Your task to perform on an android device: What's a good restaurant in Miami? Image 0: 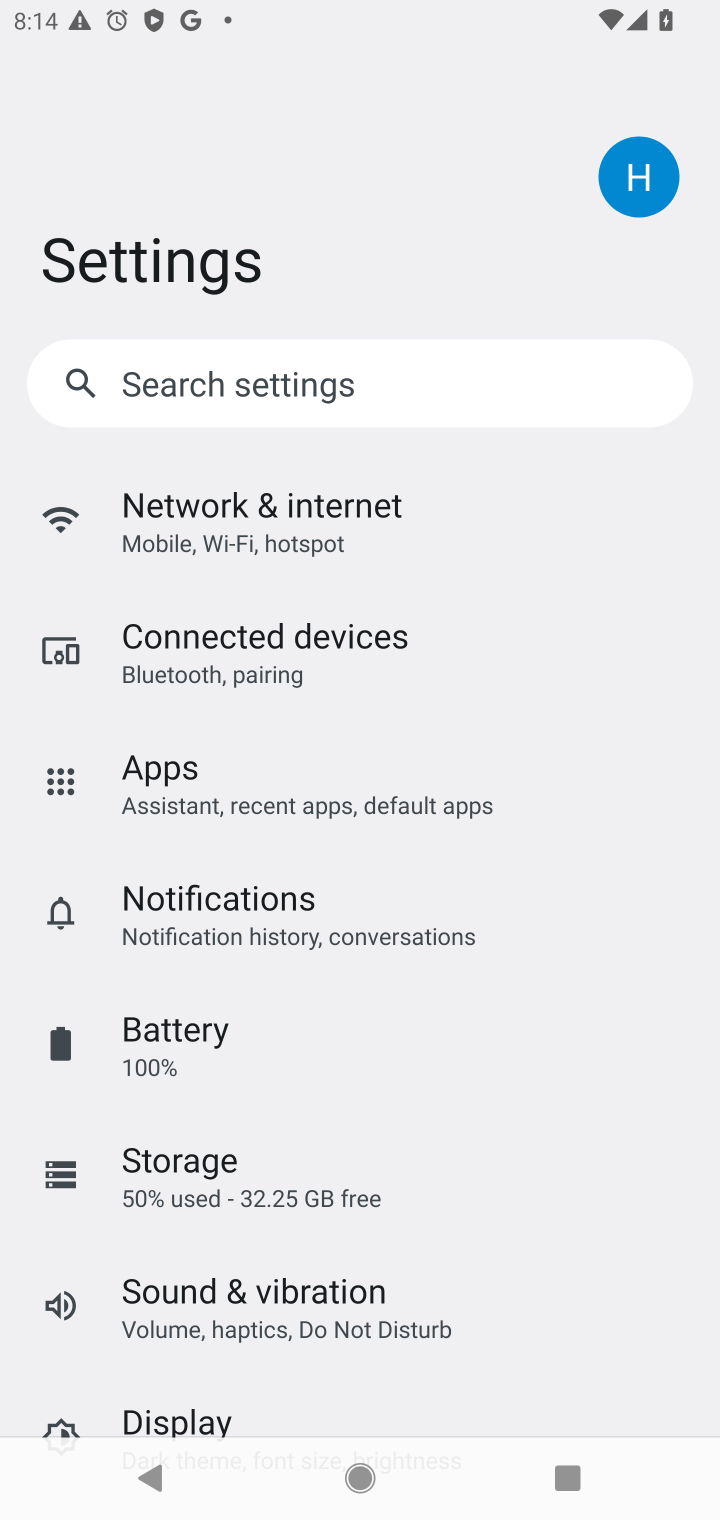
Step 0: press home button
Your task to perform on an android device: What's a good restaurant in Miami? Image 1: 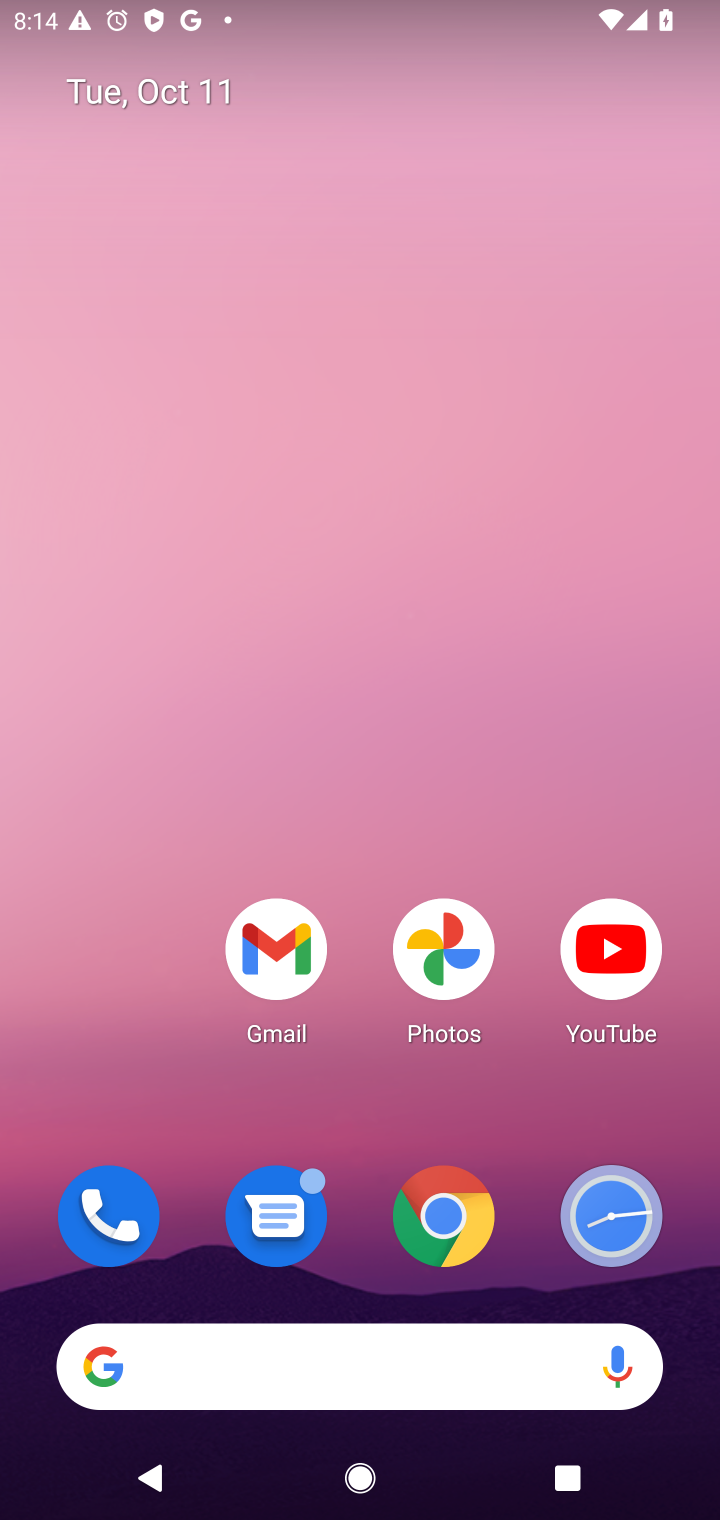
Step 1: click (449, 1230)
Your task to perform on an android device: What's a good restaurant in Miami? Image 2: 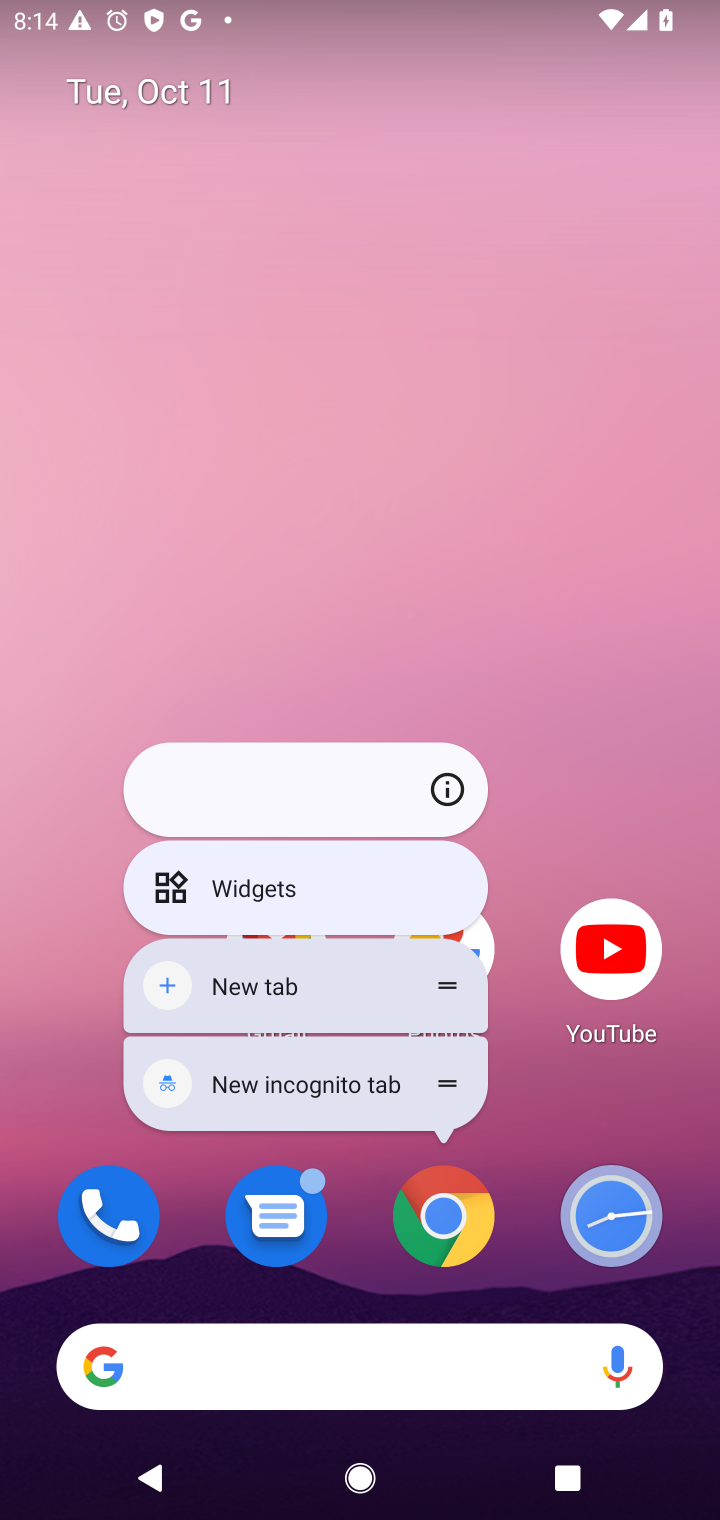
Step 2: click (449, 1230)
Your task to perform on an android device: What's a good restaurant in Miami? Image 3: 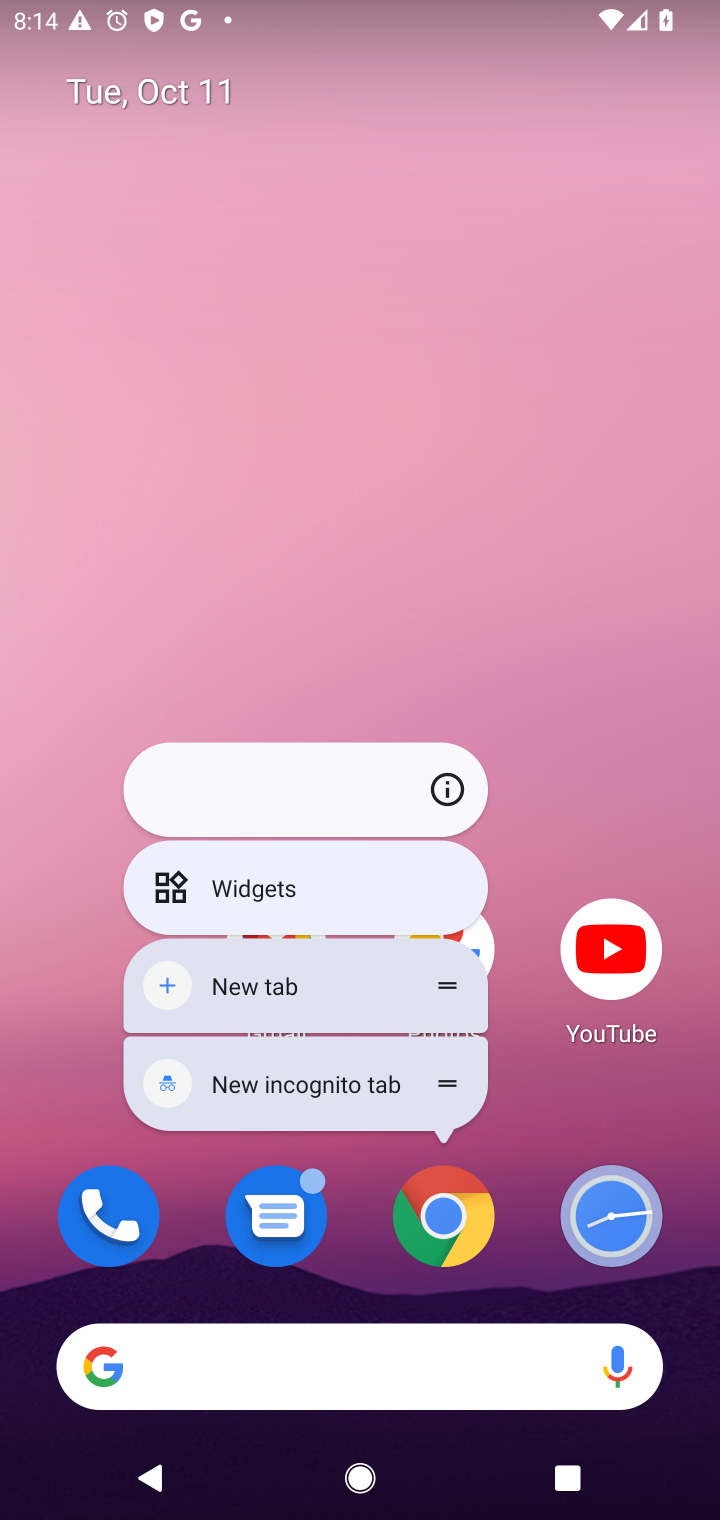
Step 3: click (419, 1226)
Your task to perform on an android device: What's a good restaurant in Miami? Image 4: 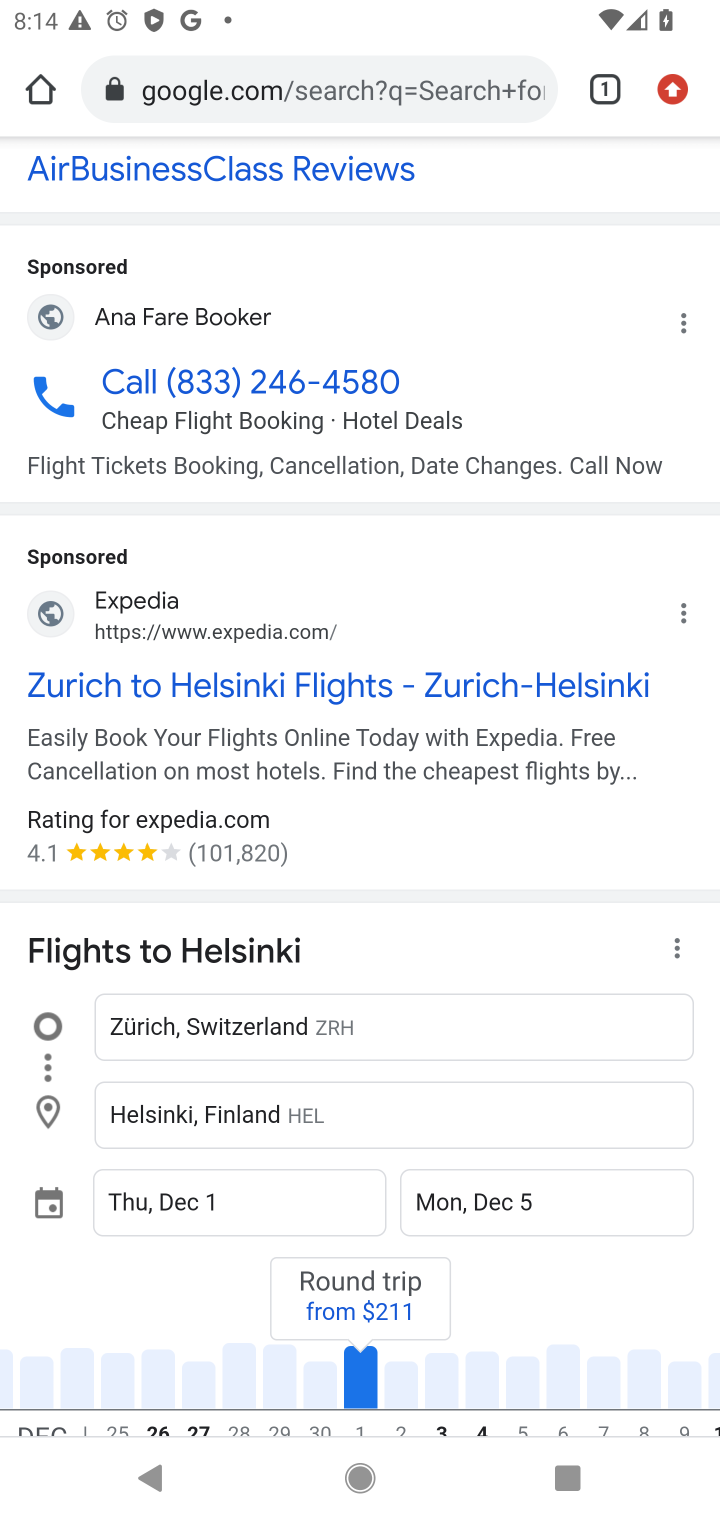
Step 4: click (440, 97)
Your task to perform on an android device: What's a good restaurant in Miami? Image 5: 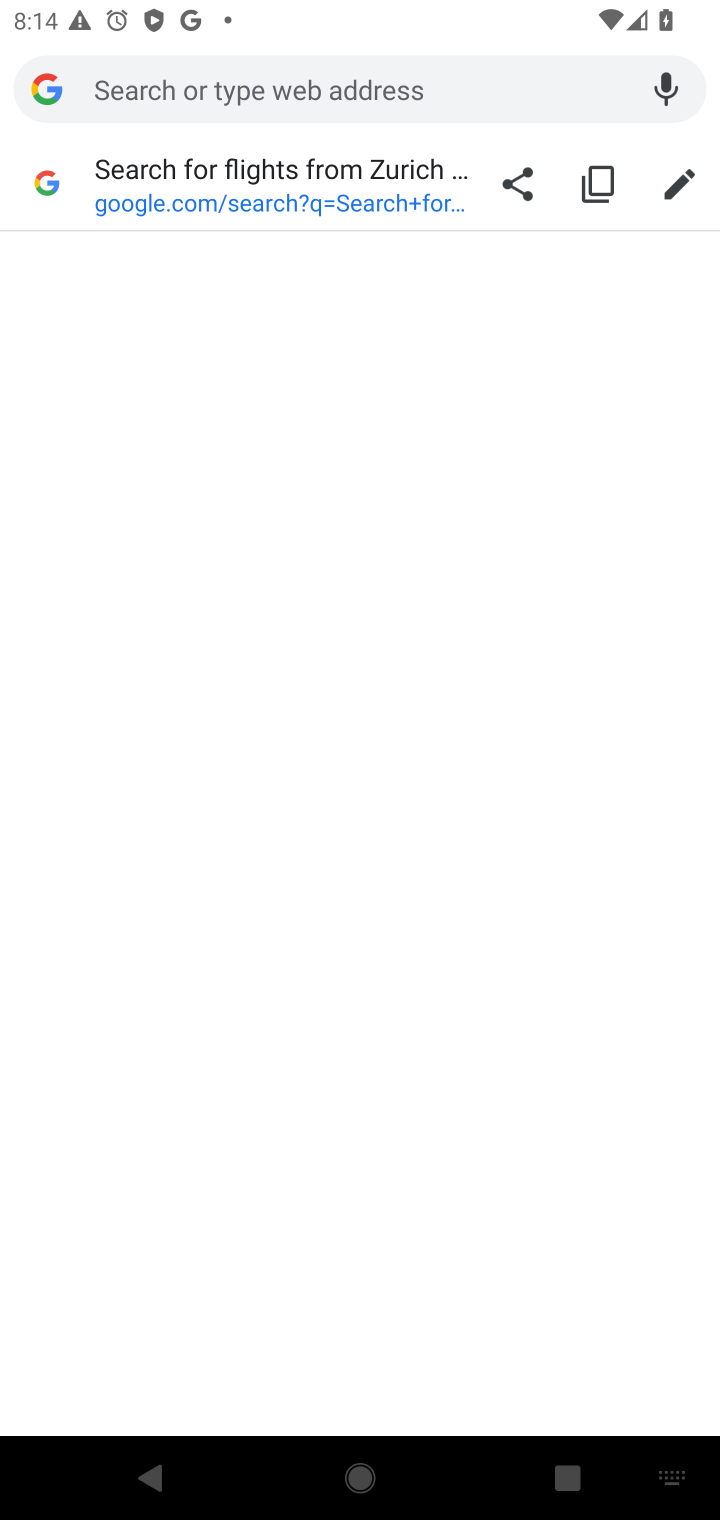
Step 5: type "What's a good restaurant in Miami?"
Your task to perform on an android device: What's a good restaurant in Miami? Image 6: 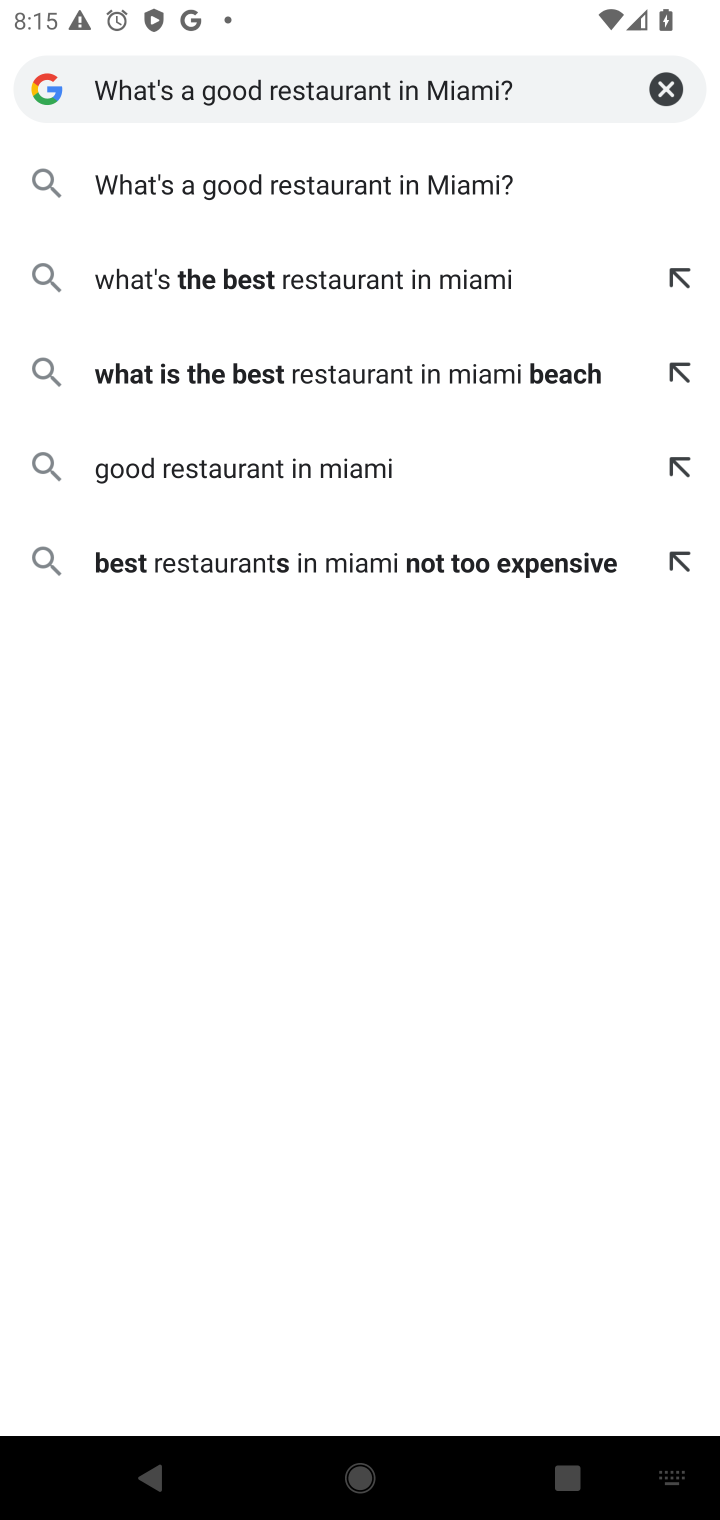
Step 6: press enter
Your task to perform on an android device: What's a good restaurant in Miami? Image 7: 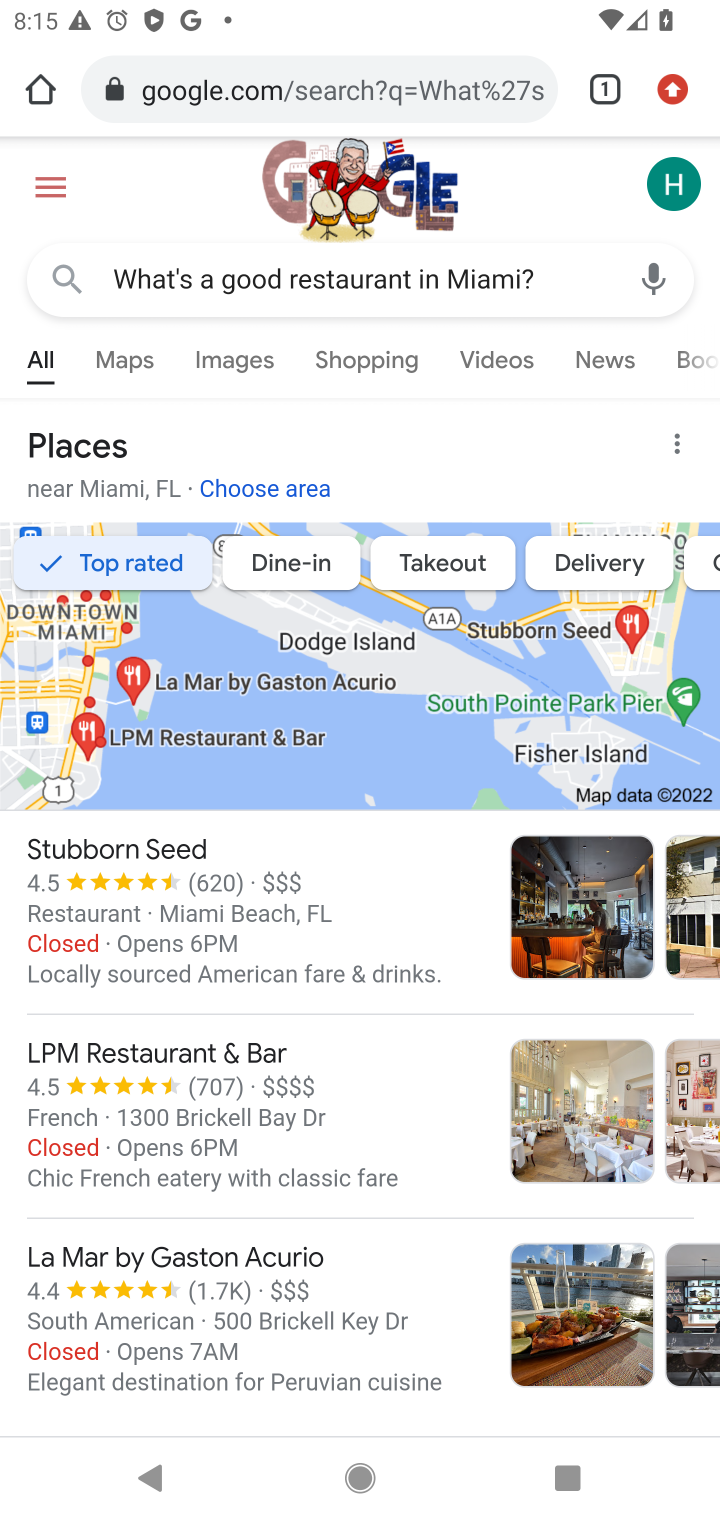
Step 7: task complete